Your task to perform on an android device: turn on the 12-hour format for clock Image 0: 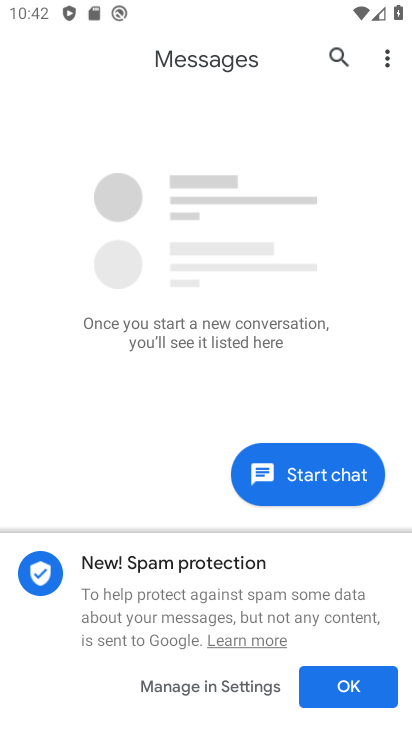
Step 0: press home button
Your task to perform on an android device: turn on the 12-hour format for clock Image 1: 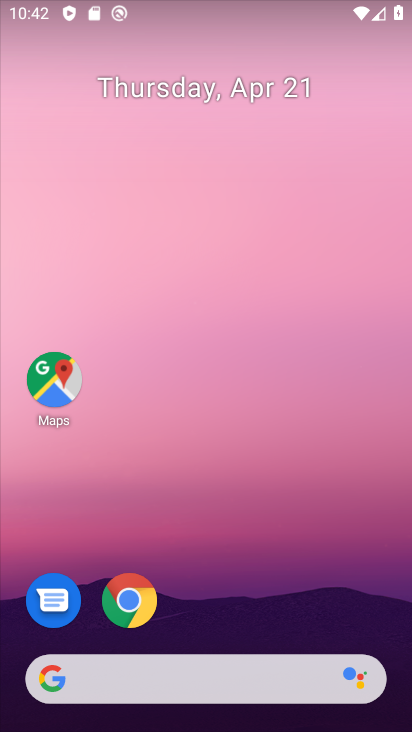
Step 1: drag from (322, 531) to (312, 44)
Your task to perform on an android device: turn on the 12-hour format for clock Image 2: 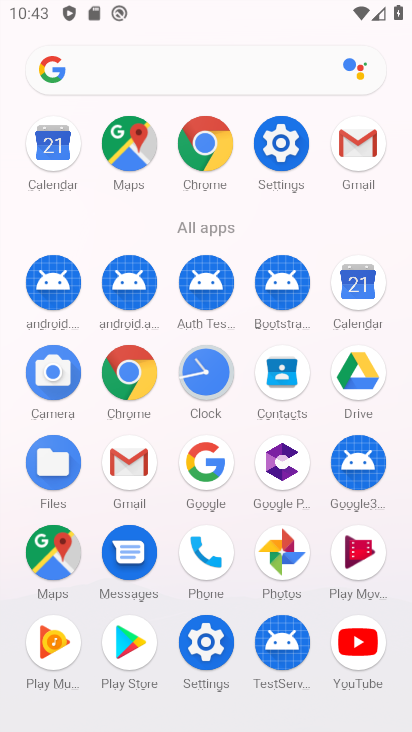
Step 2: click (220, 377)
Your task to perform on an android device: turn on the 12-hour format for clock Image 3: 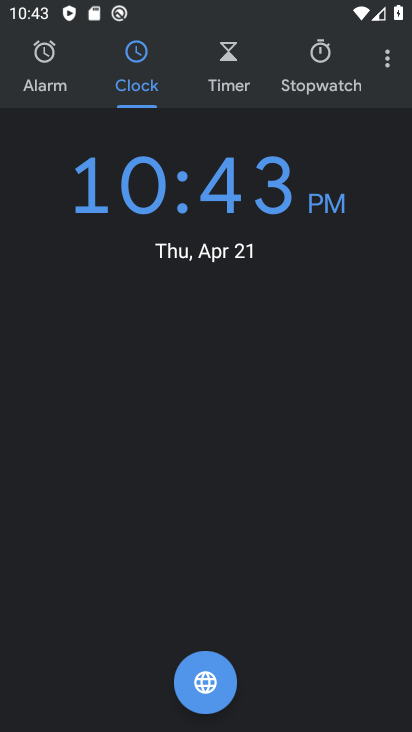
Step 3: click (385, 64)
Your task to perform on an android device: turn on the 12-hour format for clock Image 4: 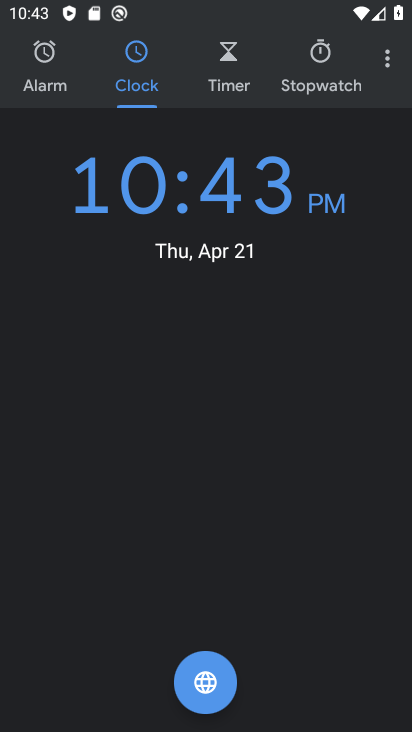
Step 4: click (385, 64)
Your task to perform on an android device: turn on the 12-hour format for clock Image 5: 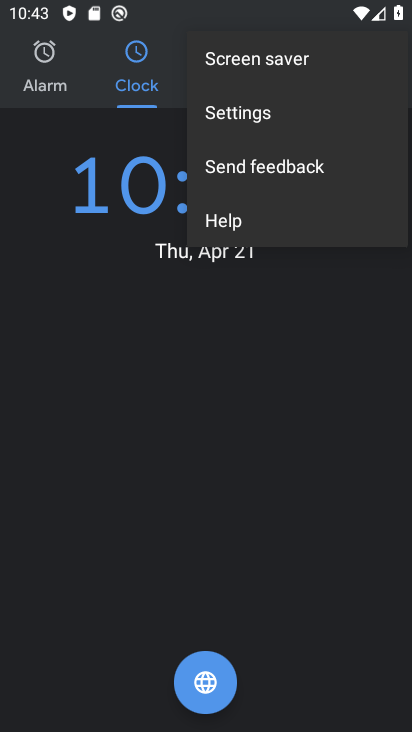
Step 5: click (256, 115)
Your task to perform on an android device: turn on the 12-hour format for clock Image 6: 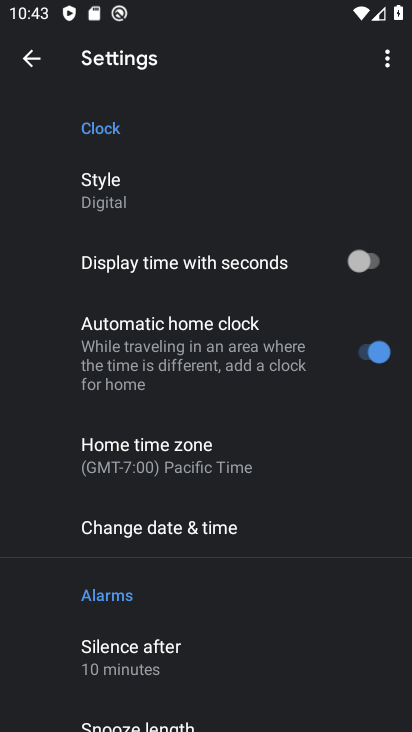
Step 6: drag from (296, 321) to (312, 214)
Your task to perform on an android device: turn on the 12-hour format for clock Image 7: 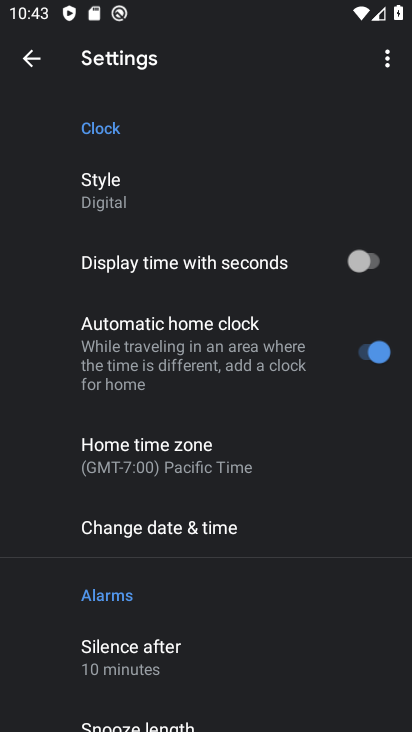
Step 7: click (159, 521)
Your task to perform on an android device: turn on the 12-hour format for clock Image 8: 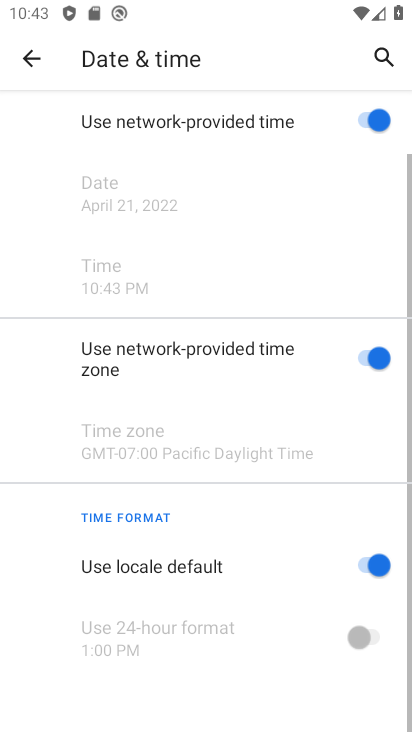
Step 8: drag from (229, 595) to (217, 270)
Your task to perform on an android device: turn on the 12-hour format for clock Image 9: 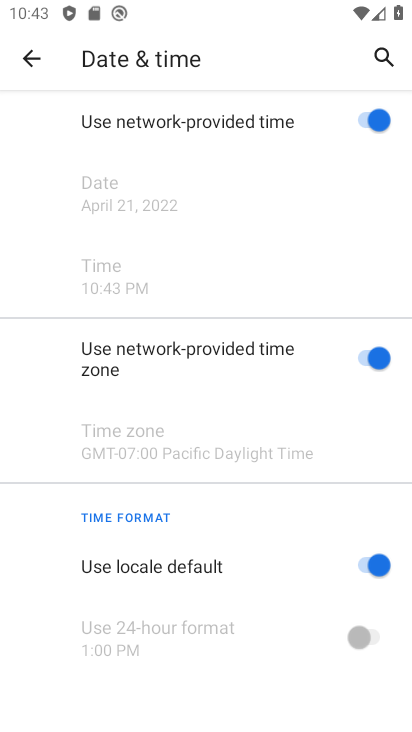
Step 9: click (374, 570)
Your task to perform on an android device: turn on the 12-hour format for clock Image 10: 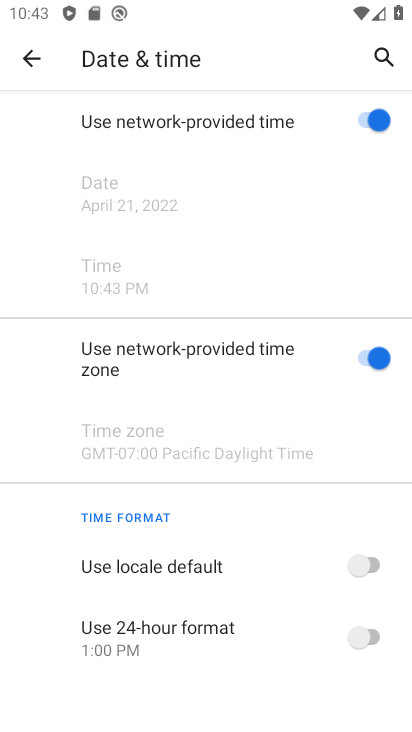
Step 10: task complete